Your task to perform on an android device: turn off wifi Image 0: 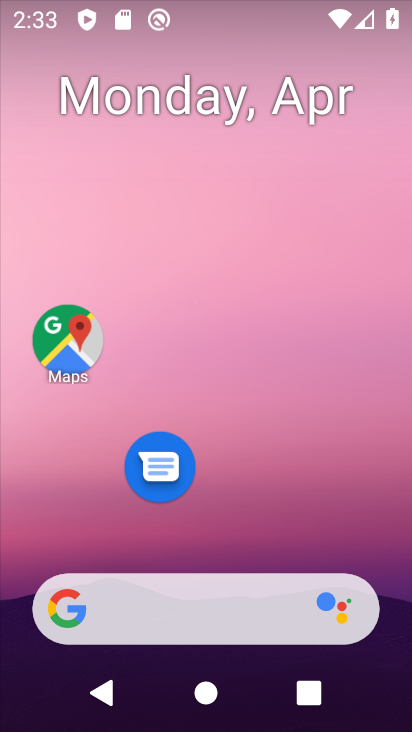
Step 0: drag from (295, 482) to (335, 12)
Your task to perform on an android device: turn off wifi Image 1: 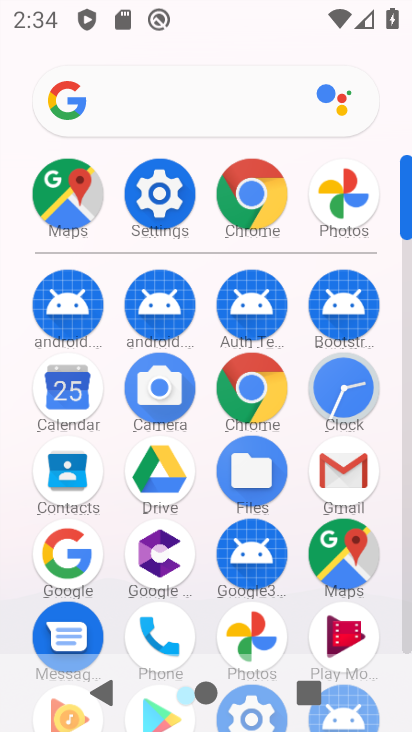
Step 1: click (153, 197)
Your task to perform on an android device: turn off wifi Image 2: 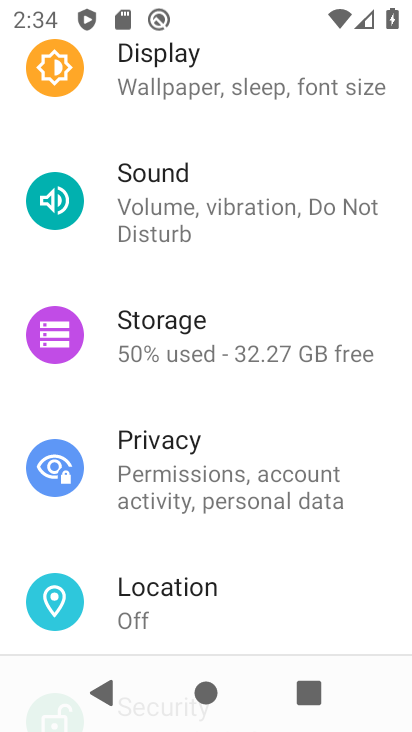
Step 2: drag from (186, 215) to (296, 626)
Your task to perform on an android device: turn off wifi Image 3: 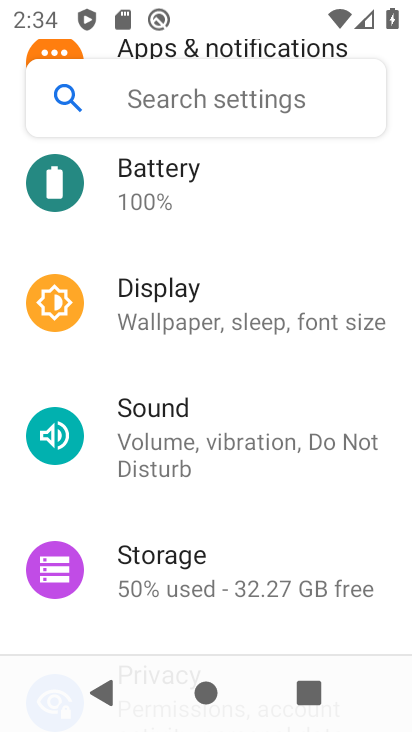
Step 3: drag from (293, 302) to (309, 585)
Your task to perform on an android device: turn off wifi Image 4: 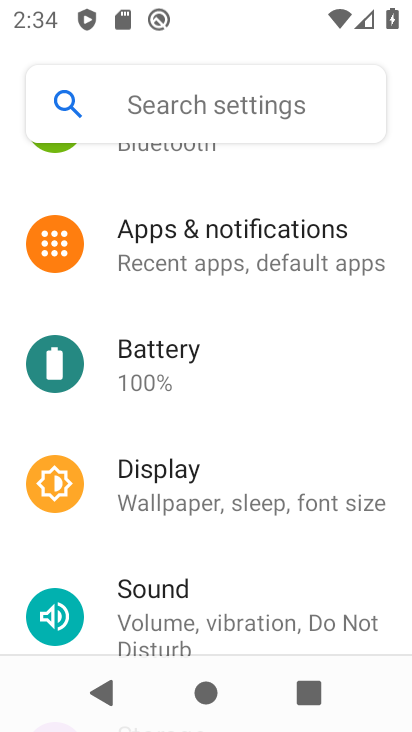
Step 4: drag from (329, 313) to (336, 574)
Your task to perform on an android device: turn off wifi Image 5: 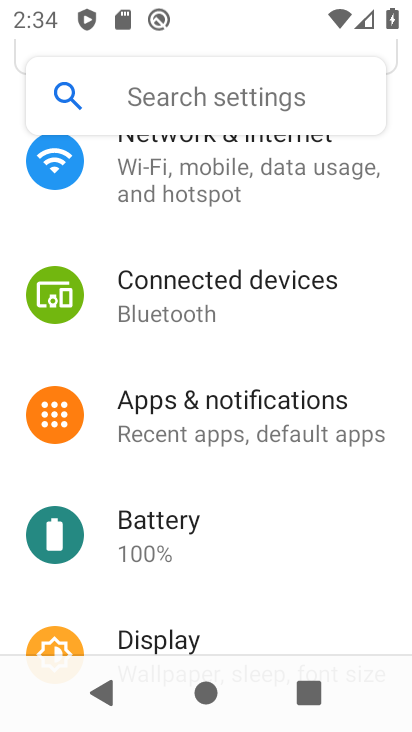
Step 5: drag from (377, 226) to (382, 494)
Your task to perform on an android device: turn off wifi Image 6: 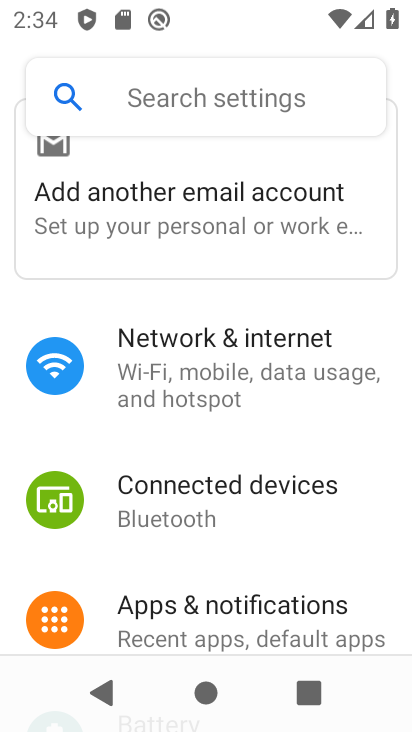
Step 6: click (317, 388)
Your task to perform on an android device: turn off wifi Image 7: 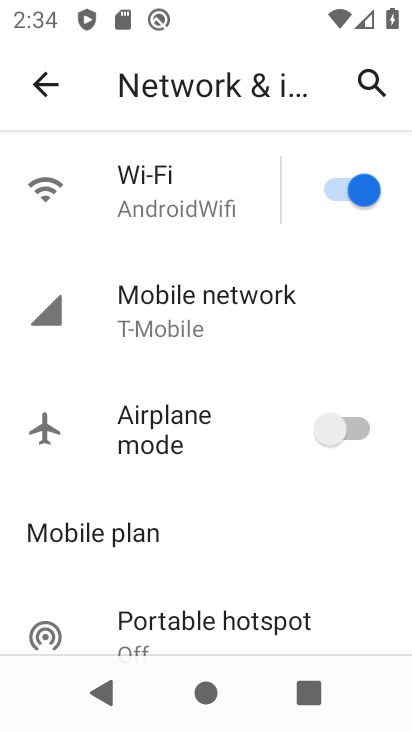
Step 7: click (346, 184)
Your task to perform on an android device: turn off wifi Image 8: 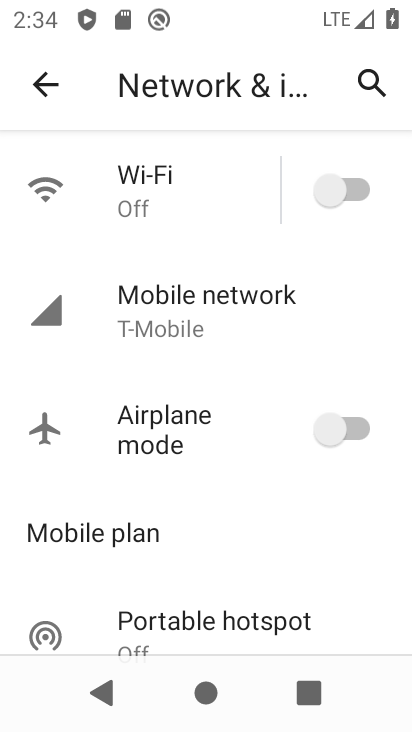
Step 8: task complete